Your task to perform on an android device: change the upload size in google photos Image 0: 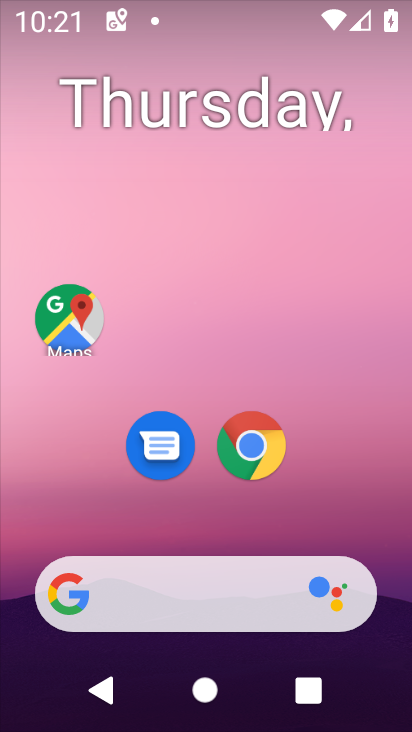
Step 0: drag from (383, 602) to (344, 78)
Your task to perform on an android device: change the upload size in google photos Image 1: 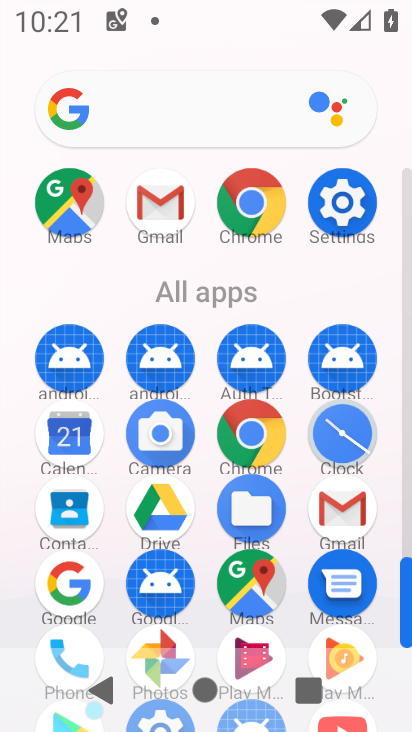
Step 1: click (164, 633)
Your task to perform on an android device: change the upload size in google photos Image 2: 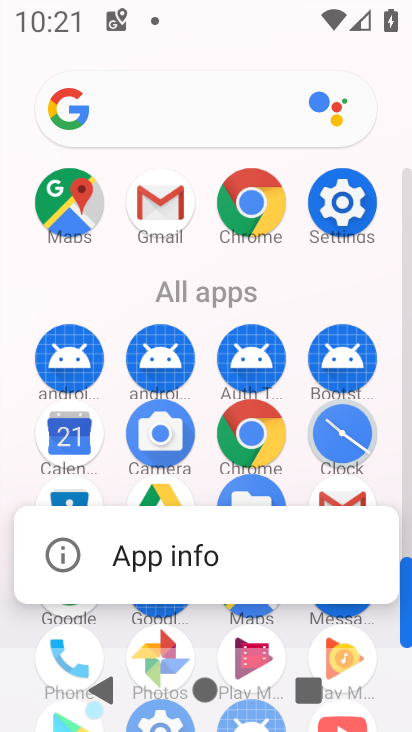
Step 2: click (164, 633)
Your task to perform on an android device: change the upload size in google photos Image 3: 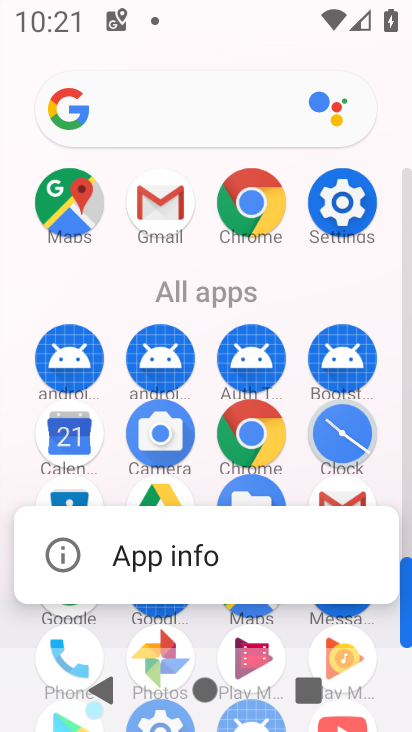
Step 3: click (164, 633)
Your task to perform on an android device: change the upload size in google photos Image 4: 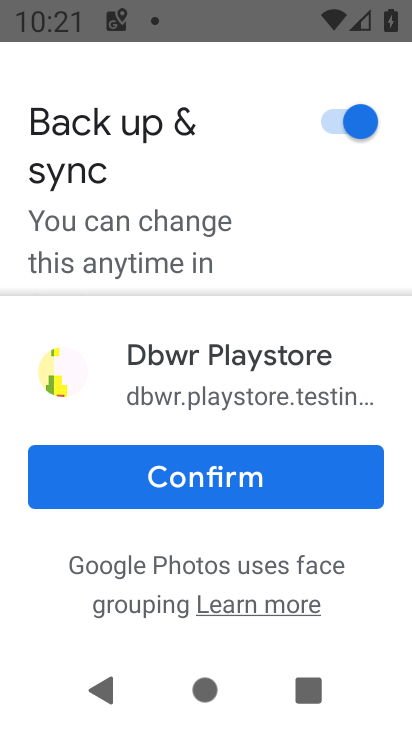
Step 4: click (181, 468)
Your task to perform on an android device: change the upload size in google photos Image 5: 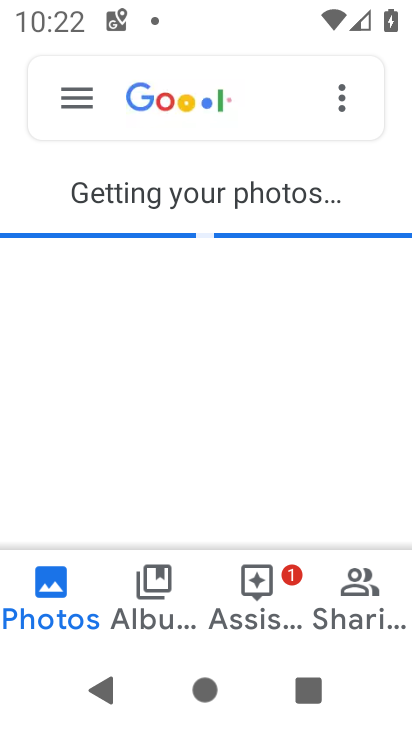
Step 5: click (88, 103)
Your task to perform on an android device: change the upload size in google photos Image 6: 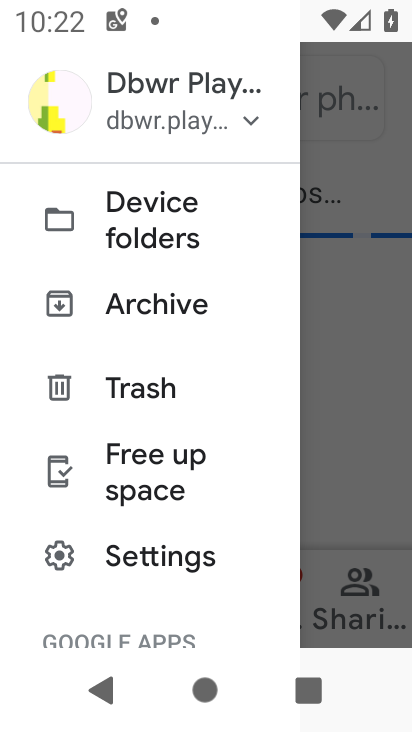
Step 6: click (168, 558)
Your task to perform on an android device: change the upload size in google photos Image 7: 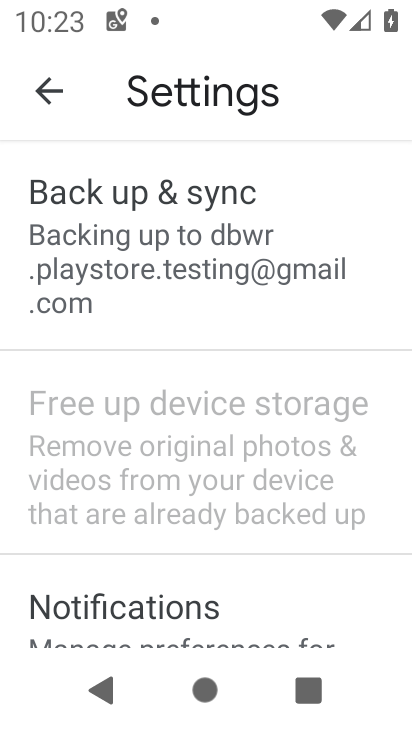
Step 7: drag from (139, 549) to (238, 225)
Your task to perform on an android device: change the upload size in google photos Image 8: 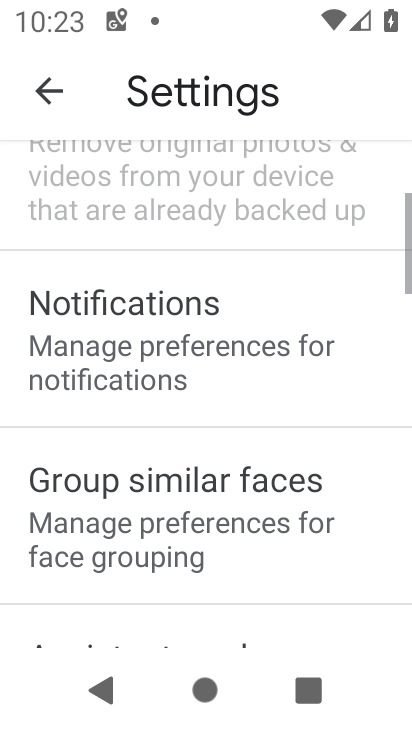
Step 8: drag from (234, 221) to (157, 575)
Your task to perform on an android device: change the upload size in google photos Image 9: 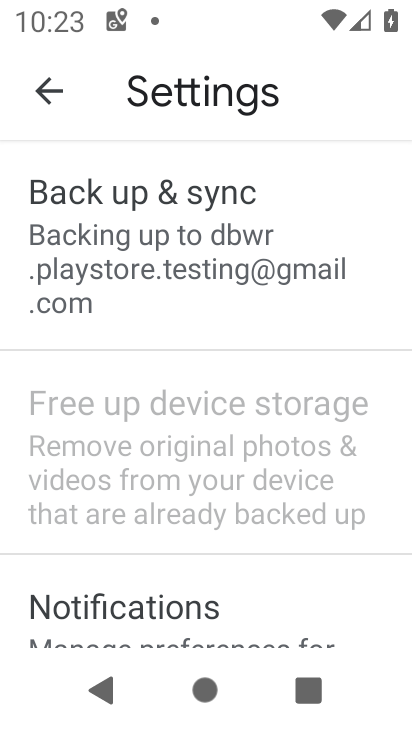
Step 9: click (177, 308)
Your task to perform on an android device: change the upload size in google photos Image 10: 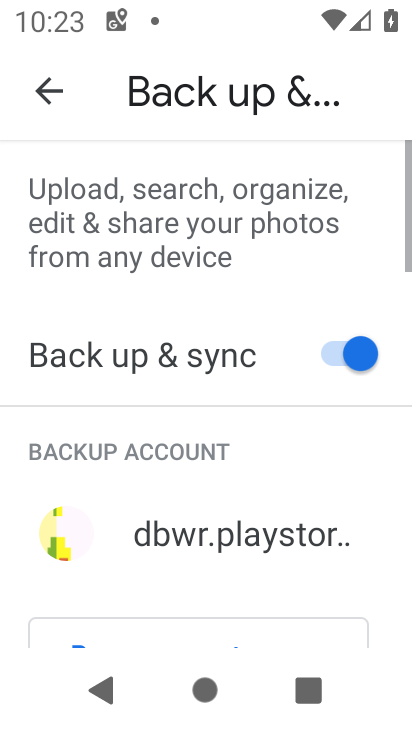
Step 10: drag from (166, 594) to (232, 105)
Your task to perform on an android device: change the upload size in google photos Image 11: 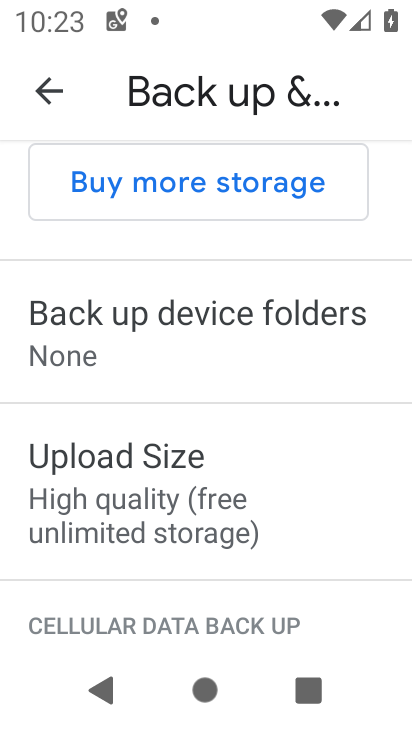
Step 11: click (220, 492)
Your task to perform on an android device: change the upload size in google photos Image 12: 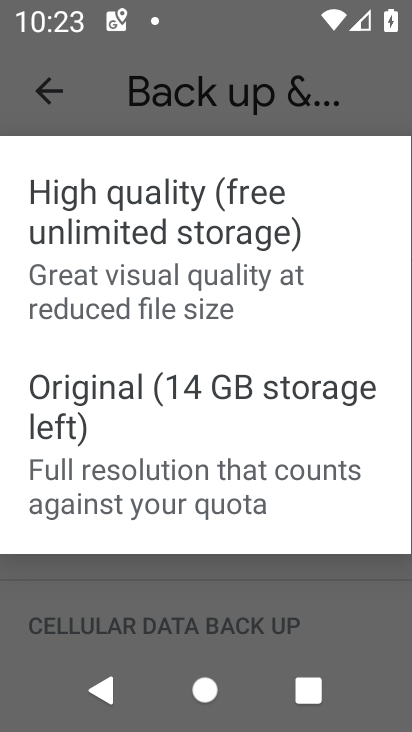
Step 12: click (165, 276)
Your task to perform on an android device: change the upload size in google photos Image 13: 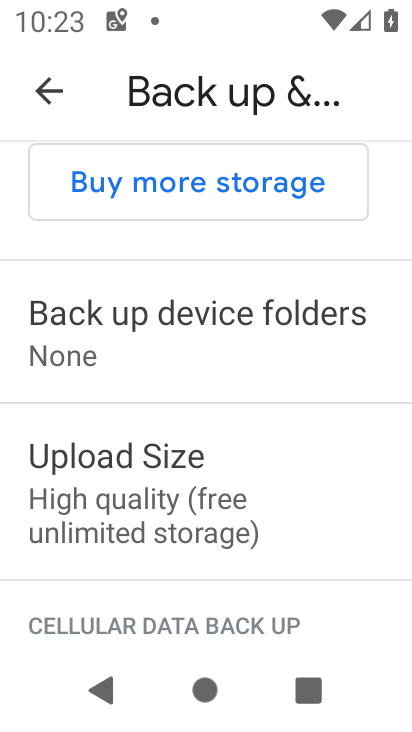
Step 13: task complete